Your task to perform on an android device: open sync settings in chrome Image 0: 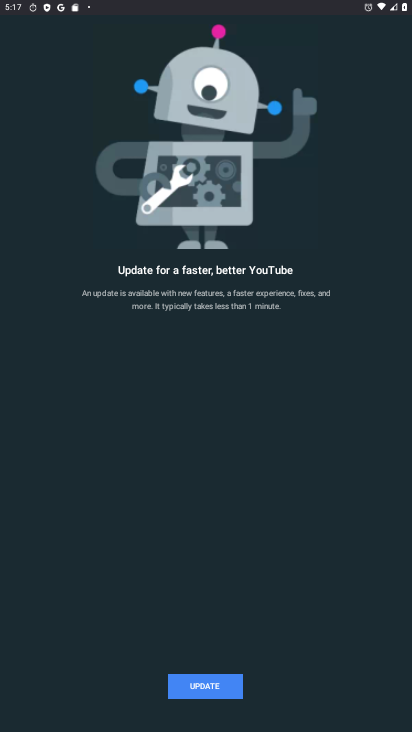
Step 0: press home button
Your task to perform on an android device: open sync settings in chrome Image 1: 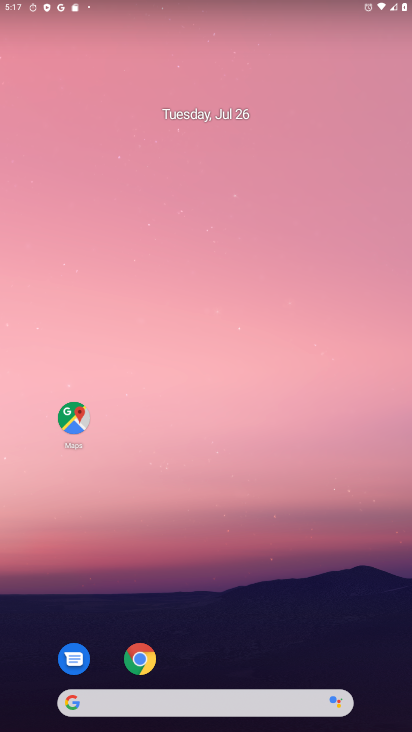
Step 1: click (140, 659)
Your task to perform on an android device: open sync settings in chrome Image 2: 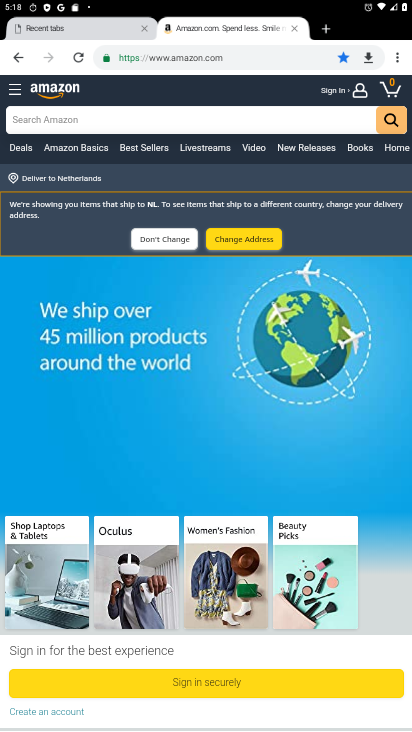
Step 2: click (399, 55)
Your task to perform on an android device: open sync settings in chrome Image 3: 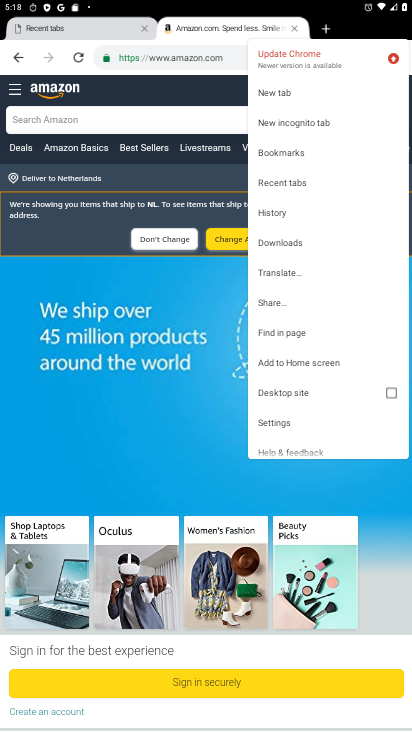
Step 3: click (293, 419)
Your task to perform on an android device: open sync settings in chrome Image 4: 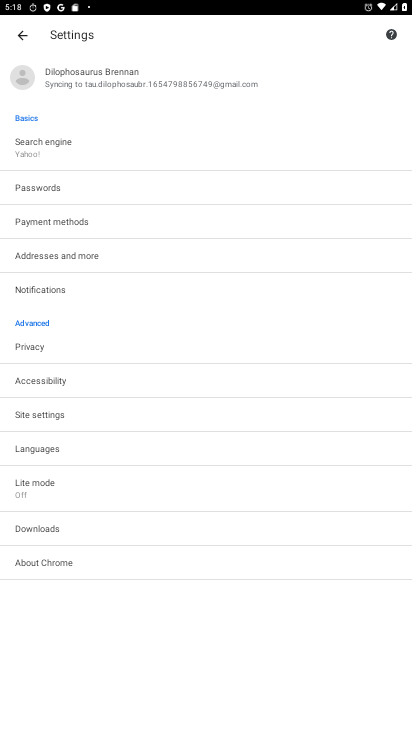
Step 4: click (144, 72)
Your task to perform on an android device: open sync settings in chrome Image 5: 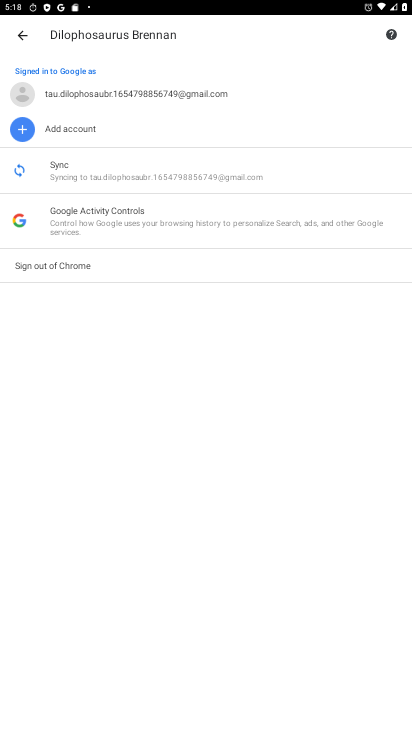
Step 5: click (104, 173)
Your task to perform on an android device: open sync settings in chrome Image 6: 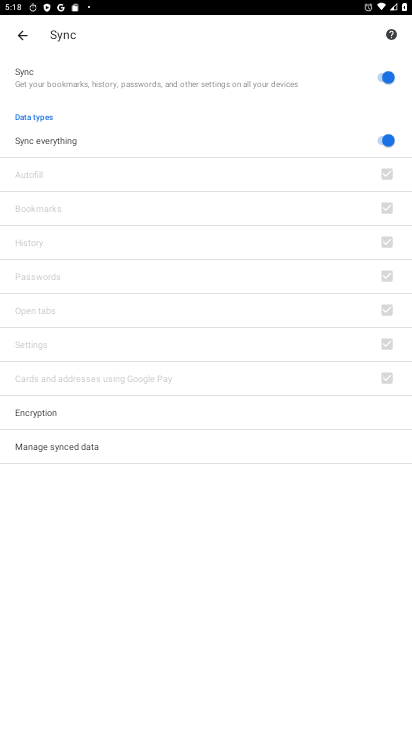
Step 6: task complete